Your task to perform on an android device: turn on translation in the chrome app Image 0: 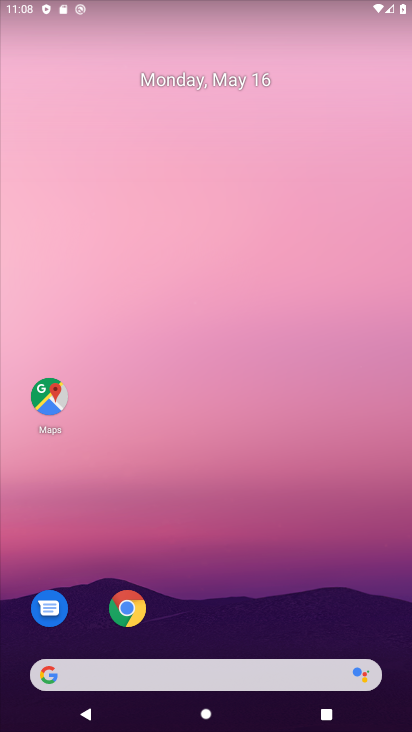
Step 0: click (132, 612)
Your task to perform on an android device: turn on translation in the chrome app Image 1: 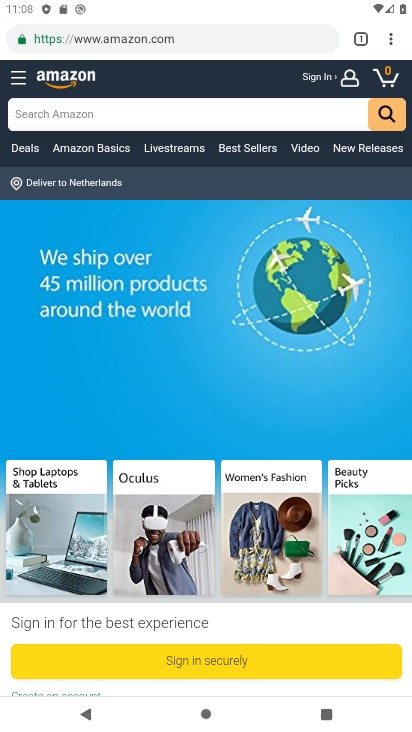
Step 1: drag from (391, 40) to (285, 461)
Your task to perform on an android device: turn on translation in the chrome app Image 2: 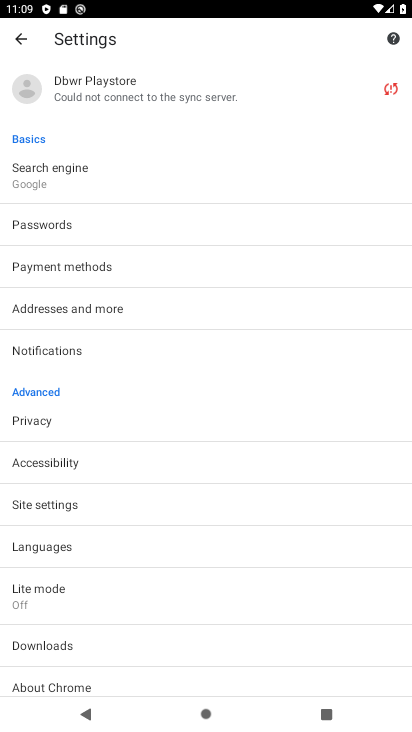
Step 2: click (68, 541)
Your task to perform on an android device: turn on translation in the chrome app Image 3: 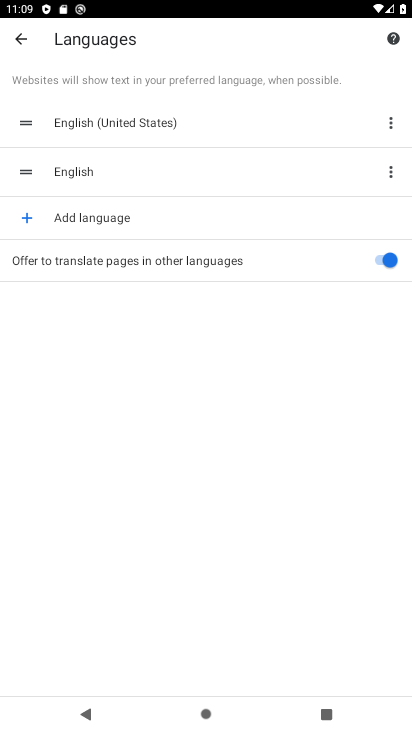
Step 3: task complete